Your task to perform on an android device: Search for jbl flip 4 on ebay.com, select the first entry, add it to the cart, then select checkout. Image 0: 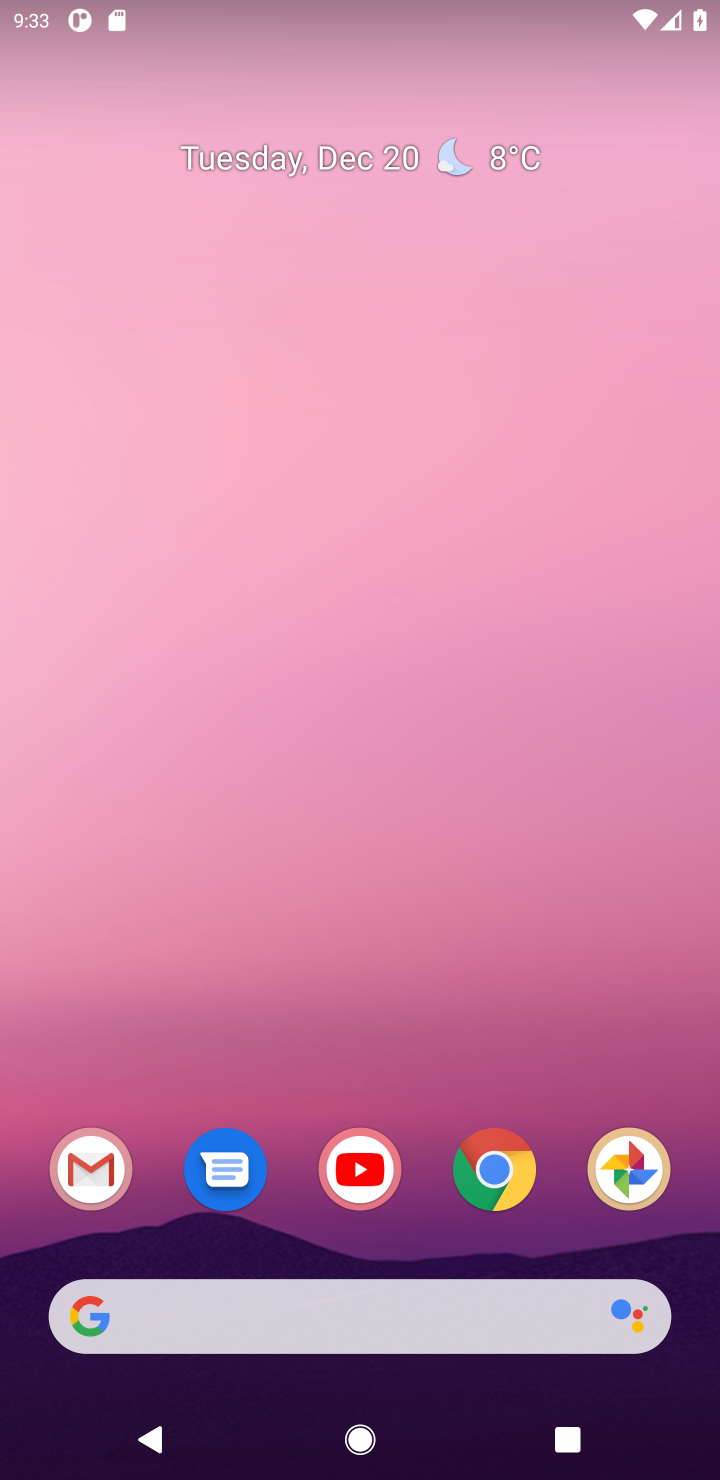
Step 0: click (495, 1347)
Your task to perform on an android device: Search for jbl flip 4 on ebay.com, select the first entry, add it to the cart, then select checkout. Image 1: 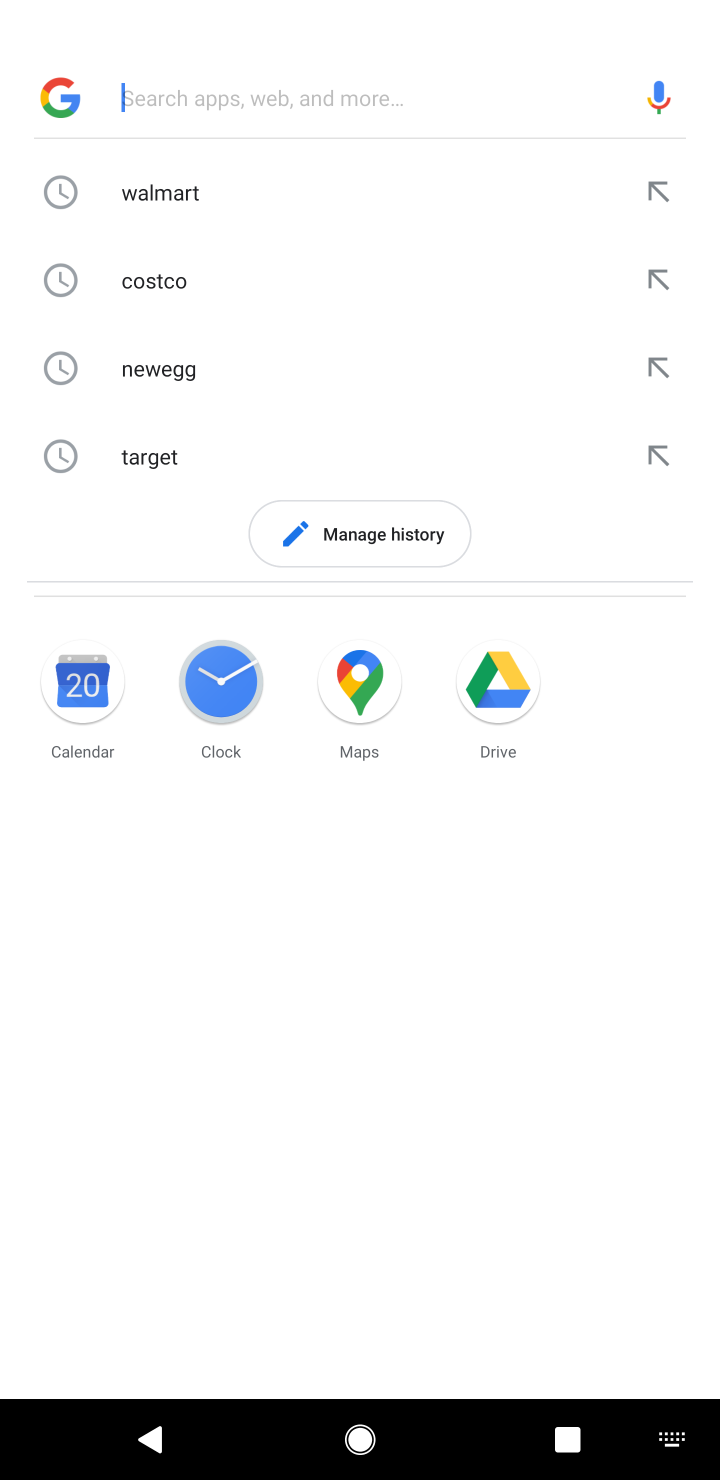
Step 1: type "ebay.com"
Your task to perform on an android device: Search for jbl flip 4 on ebay.com, select the first entry, add it to the cart, then select checkout. Image 2: 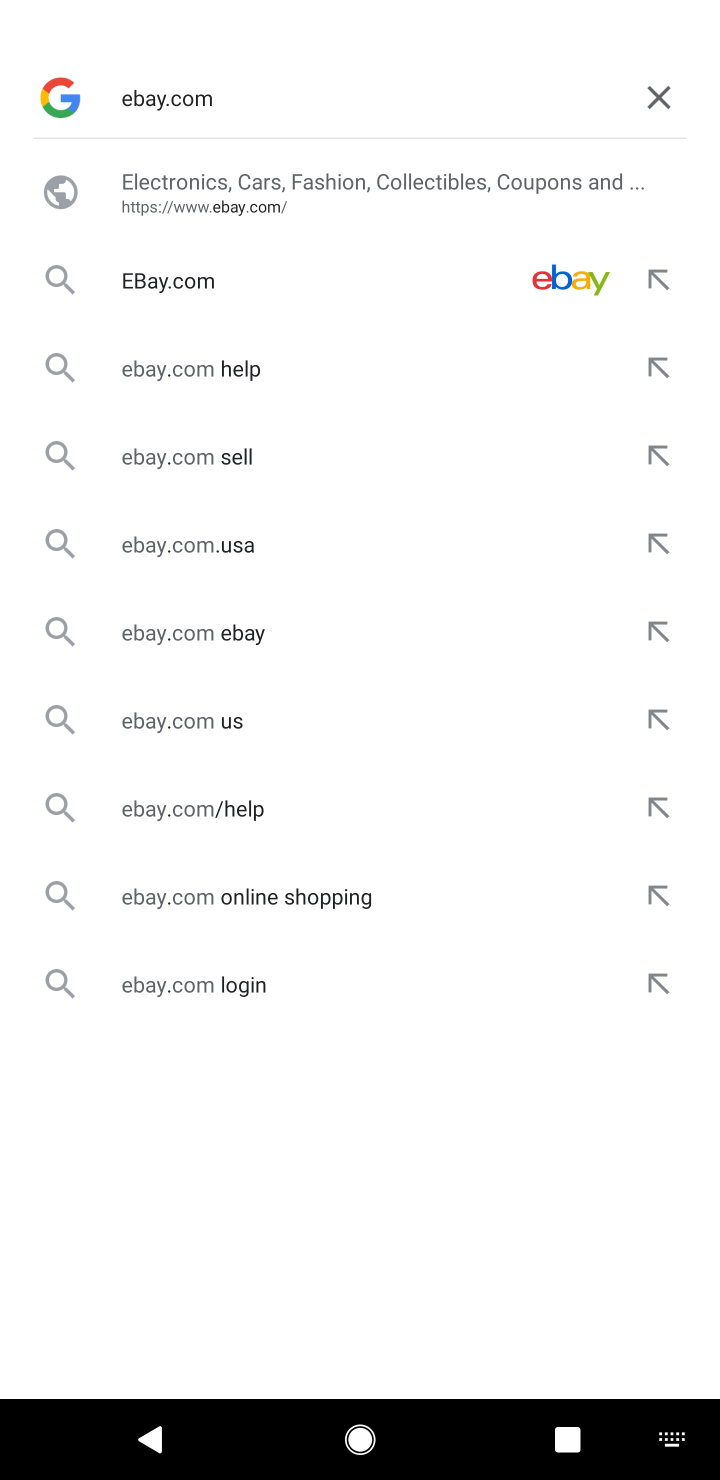
Step 2: click (265, 230)
Your task to perform on an android device: Search for jbl flip 4 on ebay.com, select the first entry, add it to the cart, then select checkout. Image 3: 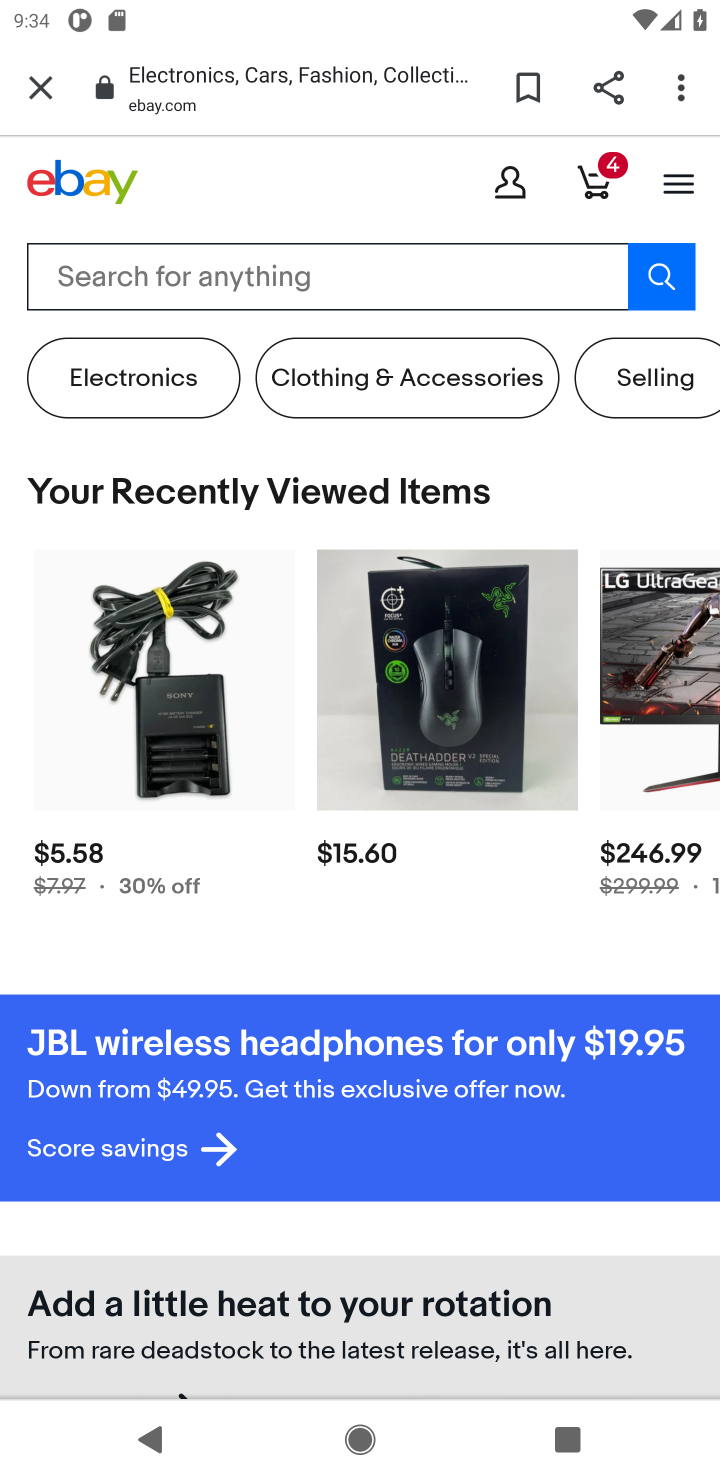
Step 3: click (251, 264)
Your task to perform on an android device: Search for jbl flip 4 on ebay.com, select the first entry, add it to the cart, then select checkout. Image 4: 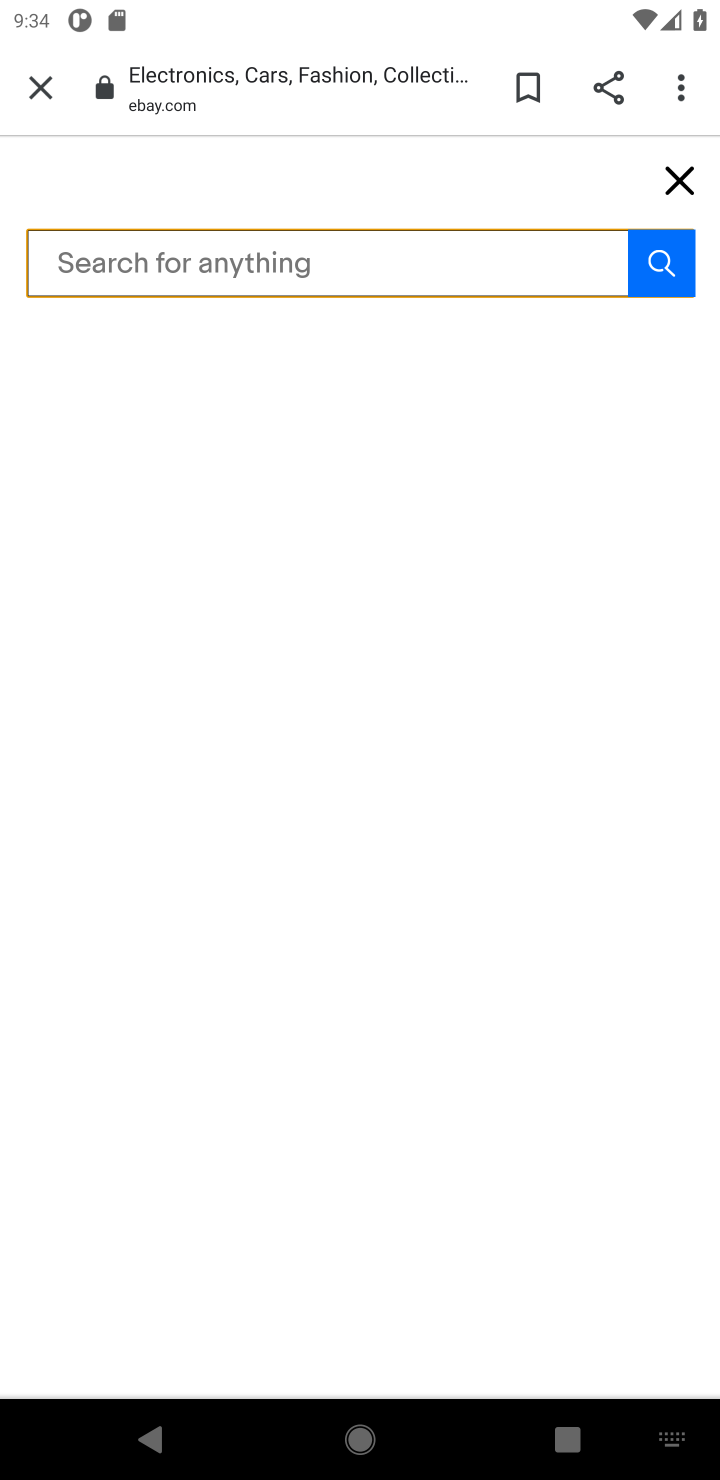
Step 4: type "jbl flip 4"
Your task to perform on an android device: Search for jbl flip 4 on ebay.com, select the first entry, add it to the cart, then select checkout. Image 5: 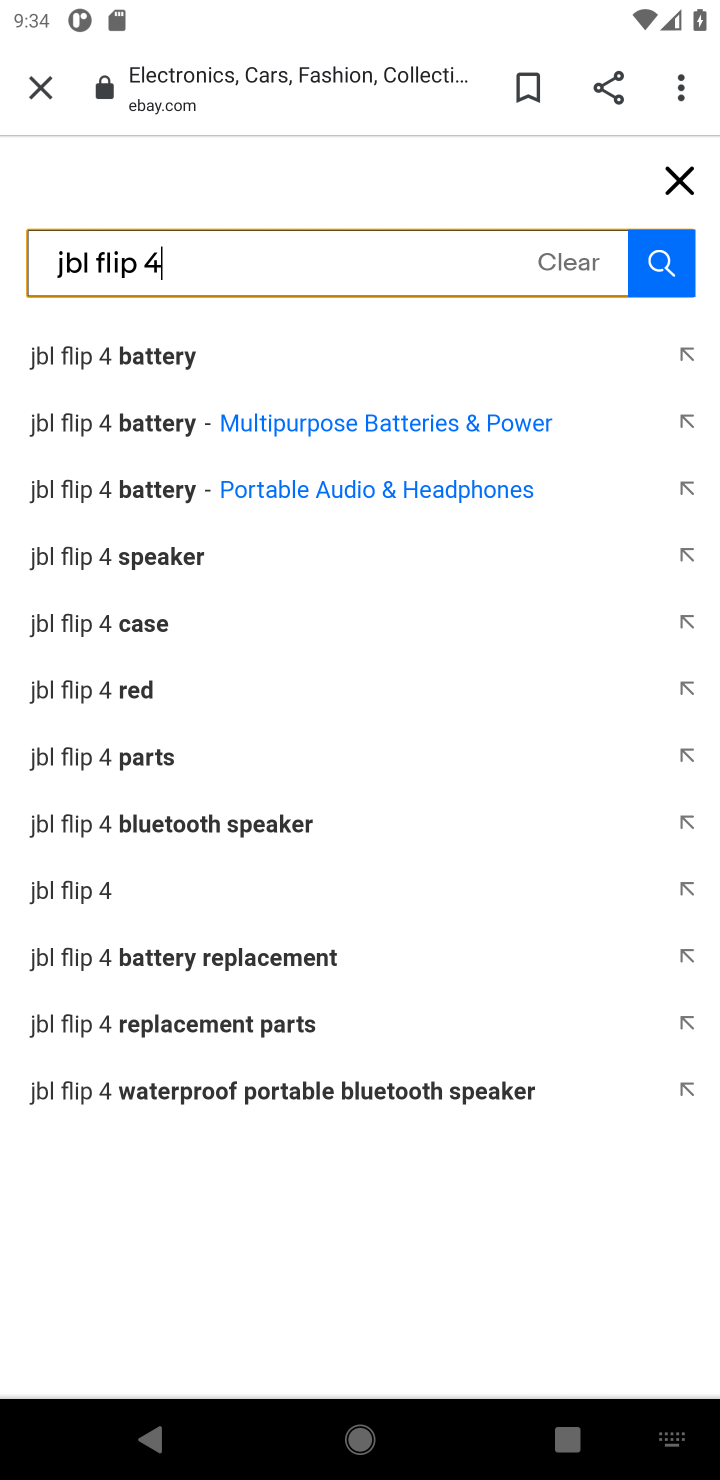
Step 5: click (680, 268)
Your task to perform on an android device: Search for jbl flip 4 on ebay.com, select the first entry, add it to the cart, then select checkout. Image 6: 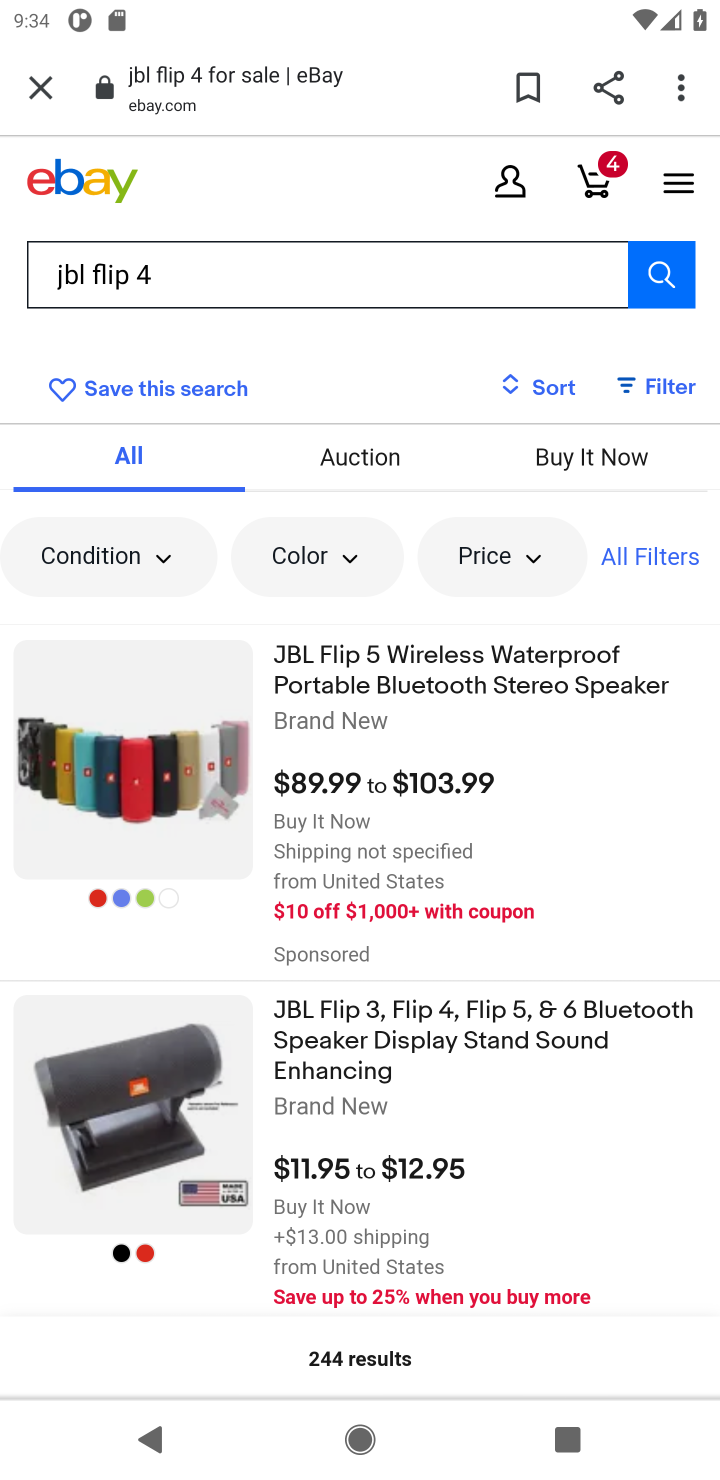
Step 6: click (362, 701)
Your task to perform on an android device: Search for jbl flip 4 on ebay.com, select the first entry, add it to the cart, then select checkout. Image 7: 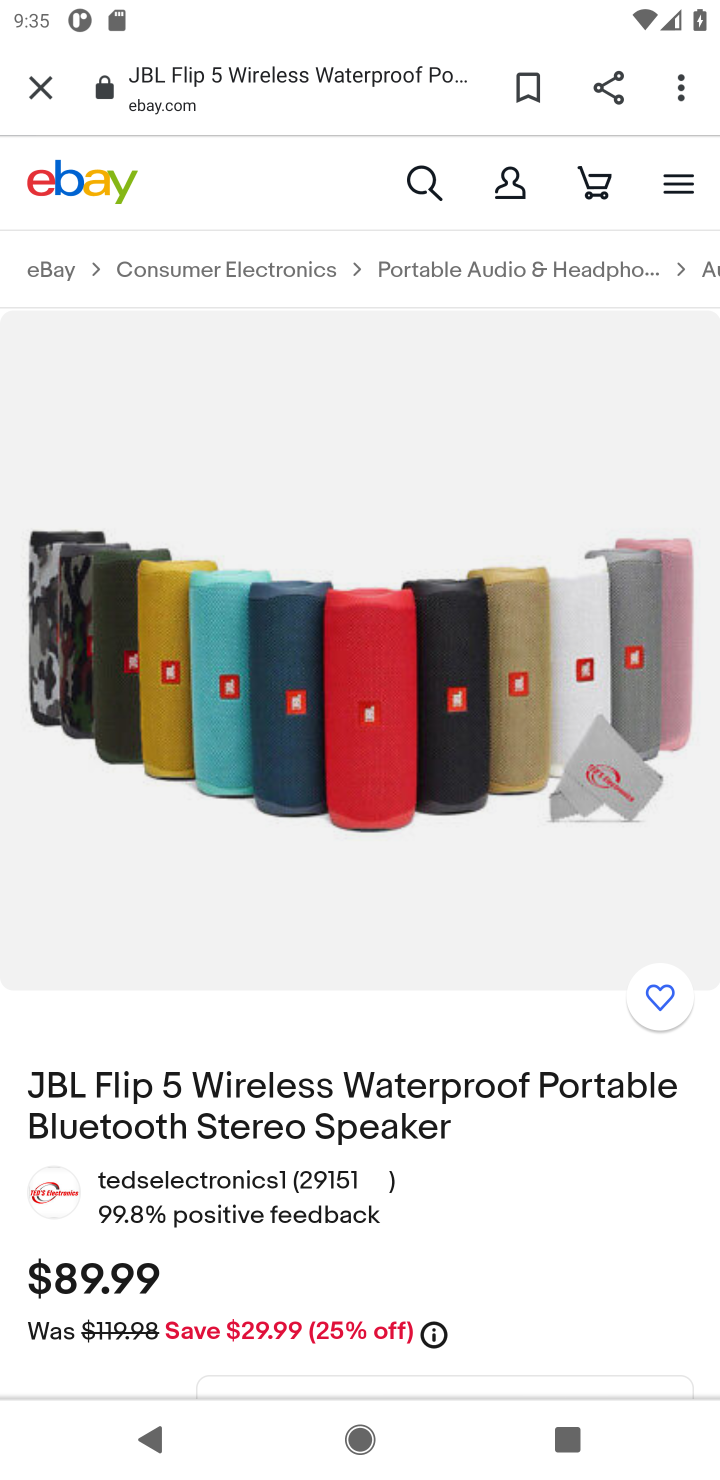
Step 7: drag from (372, 1061) to (357, 218)
Your task to perform on an android device: Search for jbl flip 4 on ebay.com, select the first entry, add it to the cart, then select checkout. Image 8: 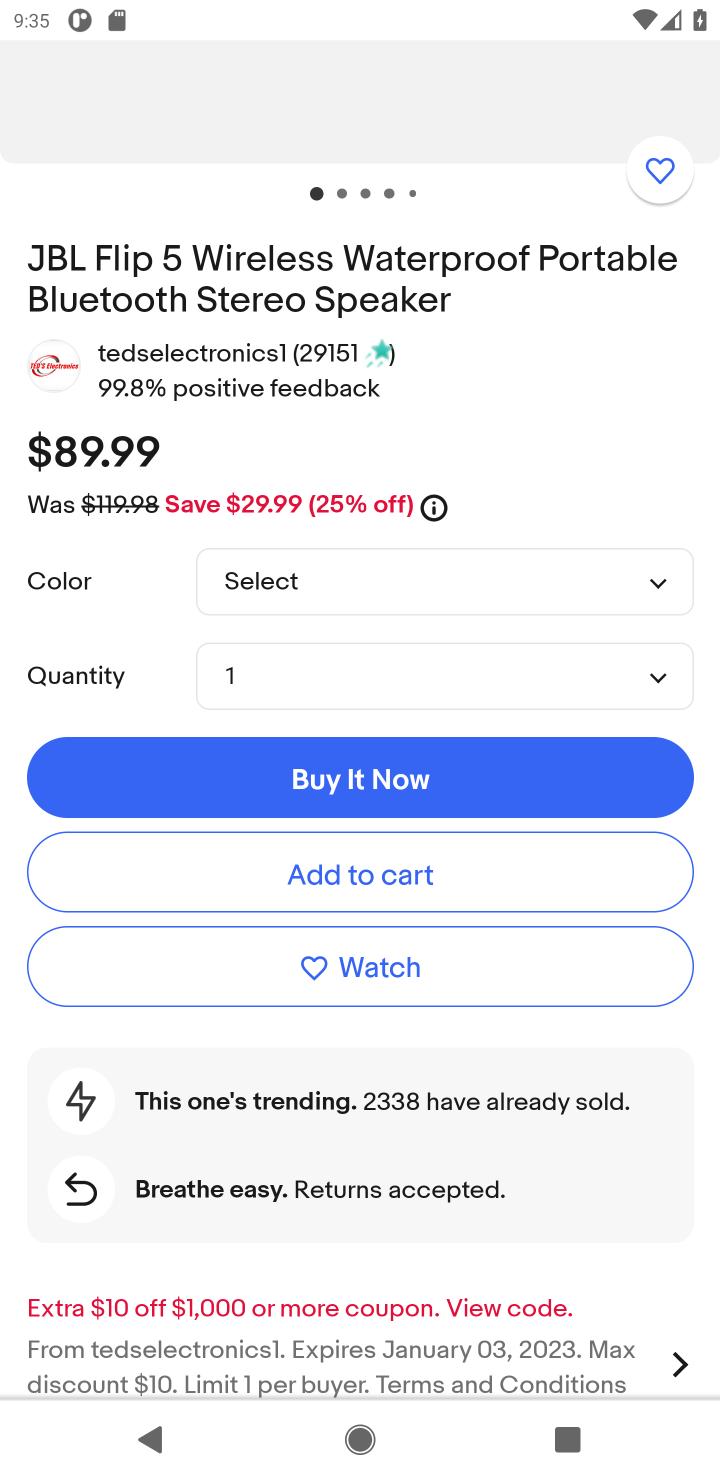
Step 8: click (444, 899)
Your task to perform on an android device: Search for jbl flip 4 on ebay.com, select the first entry, add it to the cart, then select checkout. Image 9: 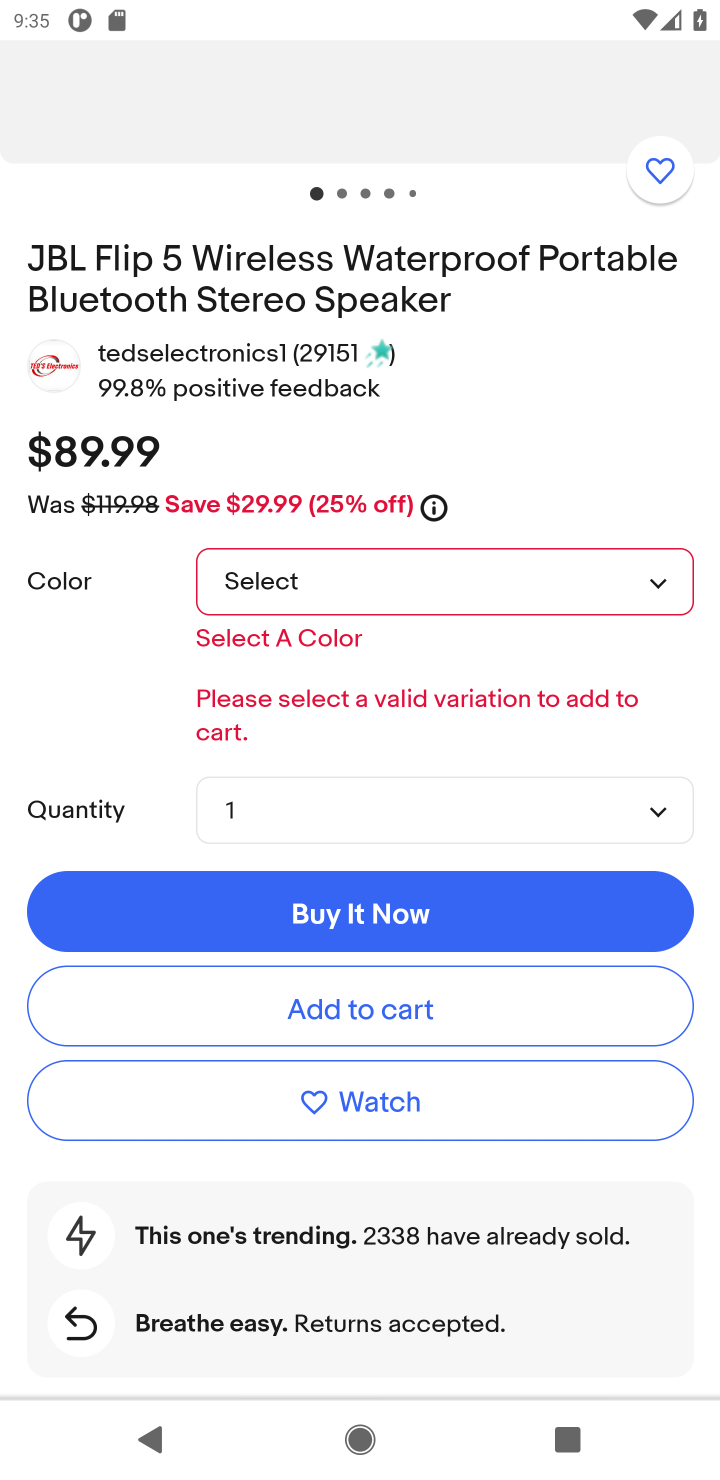
Step 9: task complete